Your task to perform on an android device: Open the web browser Image 0: 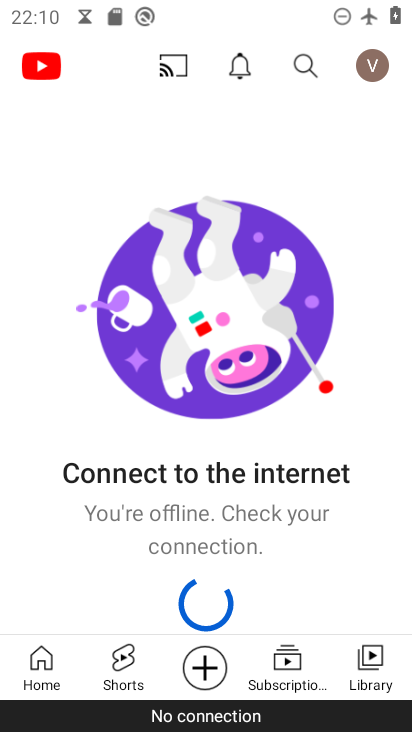
Step 0: press home button
Your task to perform on an android device: Open the web browser Image 1: 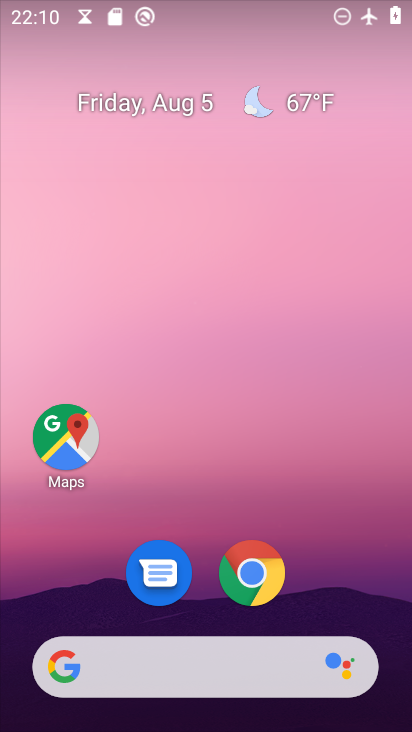
Step 1: click (253, 573)
Your task to perform on an android device: Open the web browser Image 2: 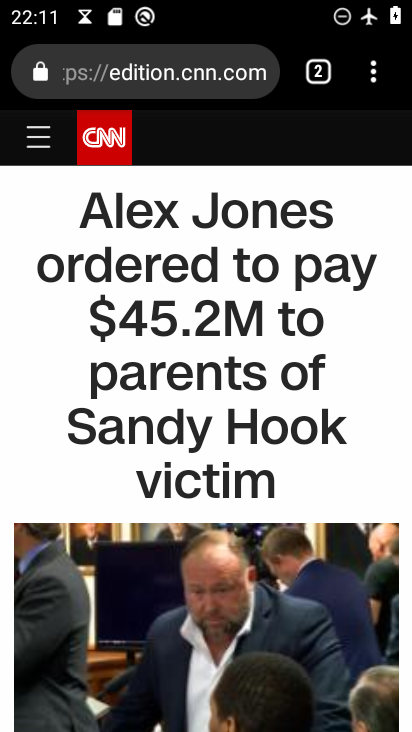
Step 2: task complete